Your task to perform on an android device: Open Yahoo.com Image 0: 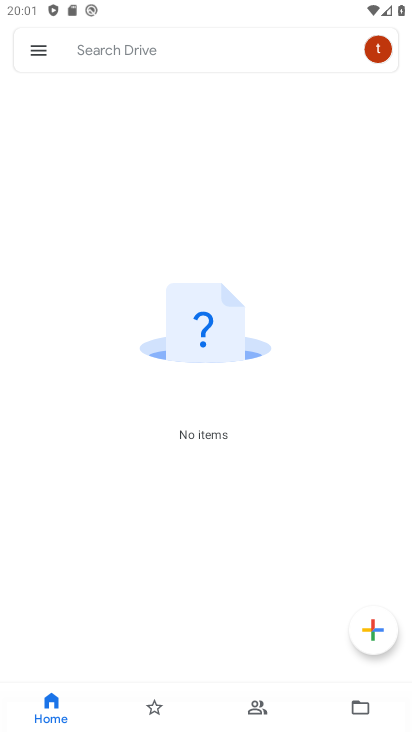
Step 0: press home button
Your task to perform on an android device: Open Yahoo.com Image 1: 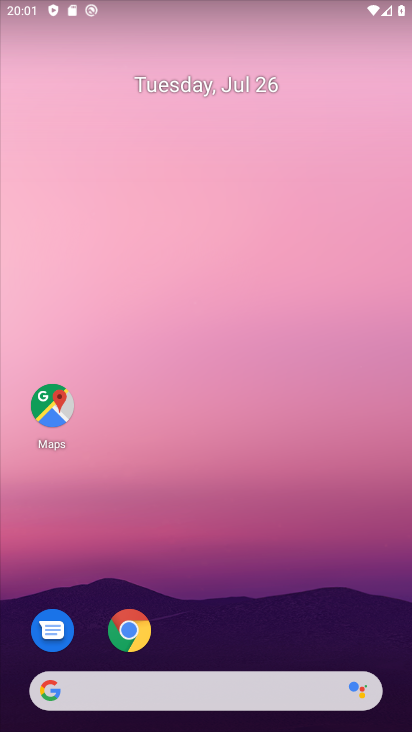
Step 1: drag from (376, 619) to (365, 86)
Your task to perform on an android device: Open Yahoo.com Image 2: 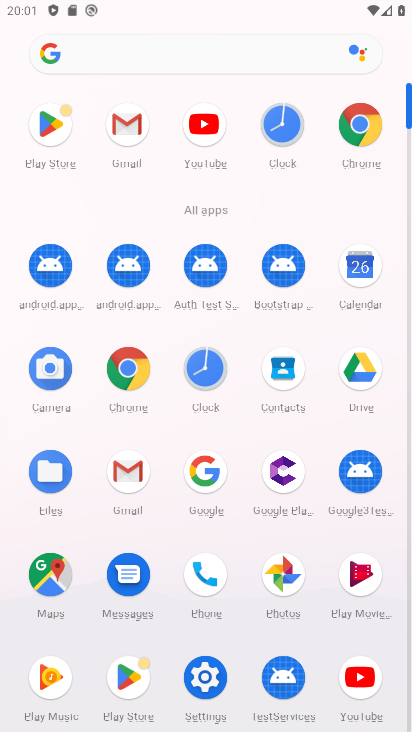
Step 2: click (127, 367)
Your task to perform on an android device: Open Yahoo.com Image 3: 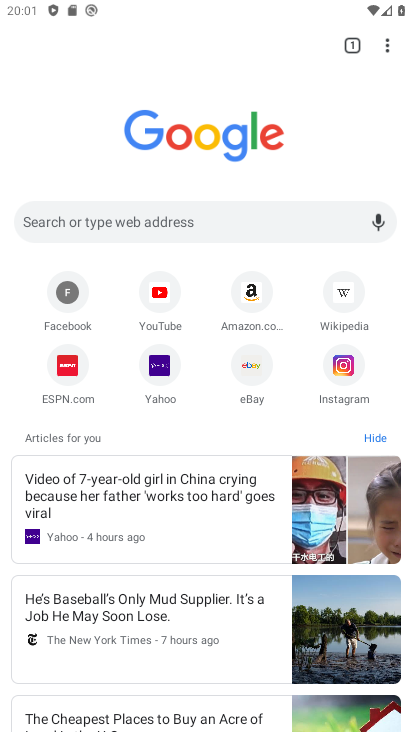
Step 3: click (257, 219)
Your task to perform on an android device: Open Yahoo.com Image 4: 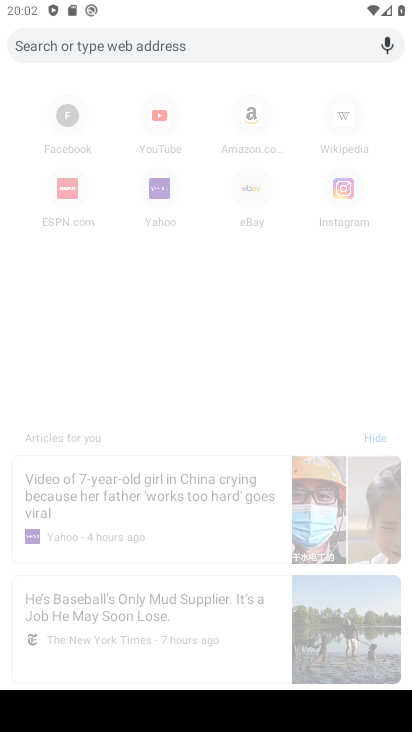
Step 4: type "yahoo.com"
Your task to perform on an android device: Open Yahoo.com Image 5: 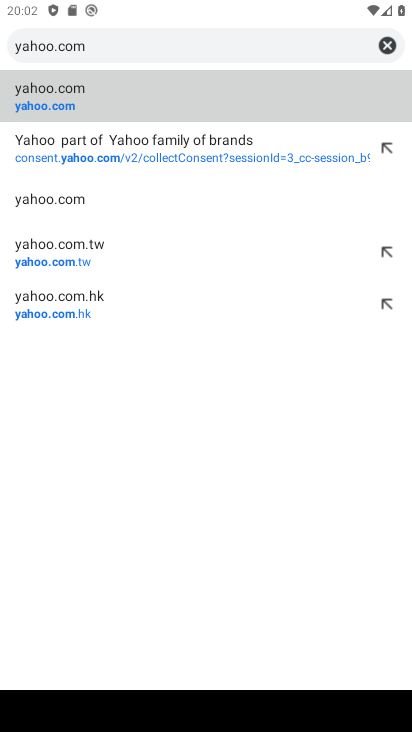
Step 5: click (285, 97)
Your task to perform on an android device: Open Yahoo.com Image 6: 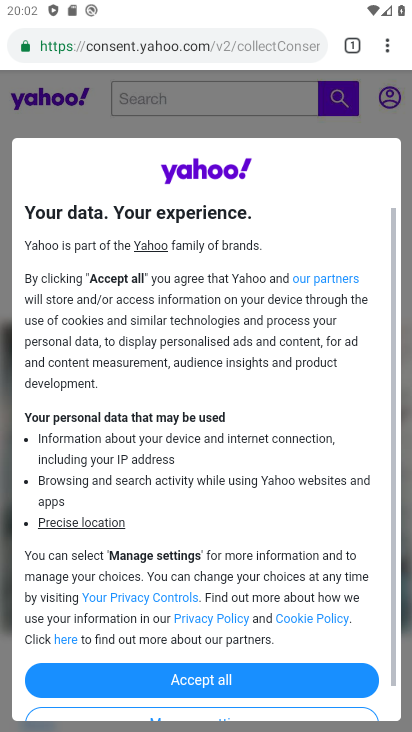
Step 6: task complete